Your task to perform on an android device: check the backup settings in the google photos Image 0: 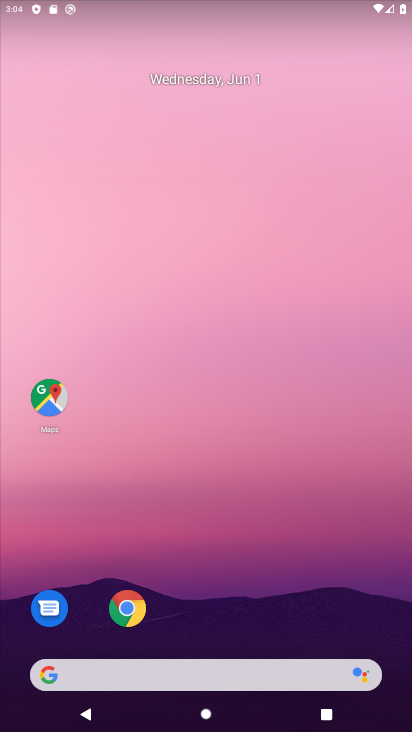
Step 0: drag from (231, 664) to (213, 237)
Your task to perform on an android device: check the backup settings in the google photos Image 1: 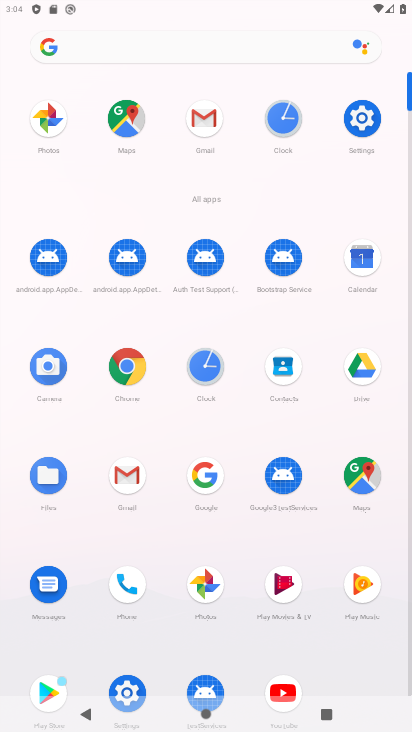
Step 1: click (203, 579)
Your task to perform on an android device: check the backup settings in the google photos Image 2: 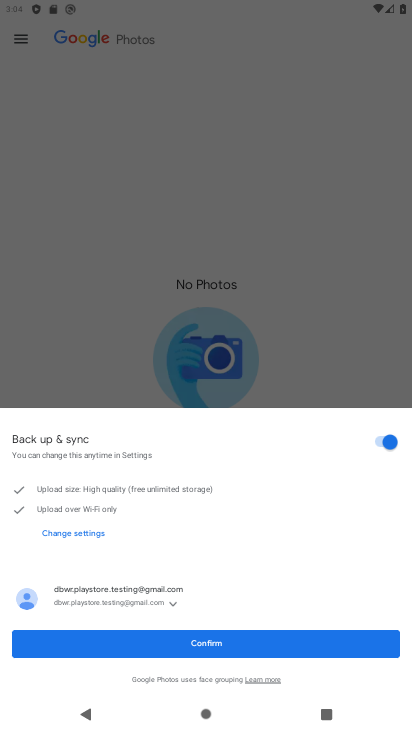
Step 2: click (185, 653)
Your task to perform on an android device: check the backup settings in the google photos Image 3: 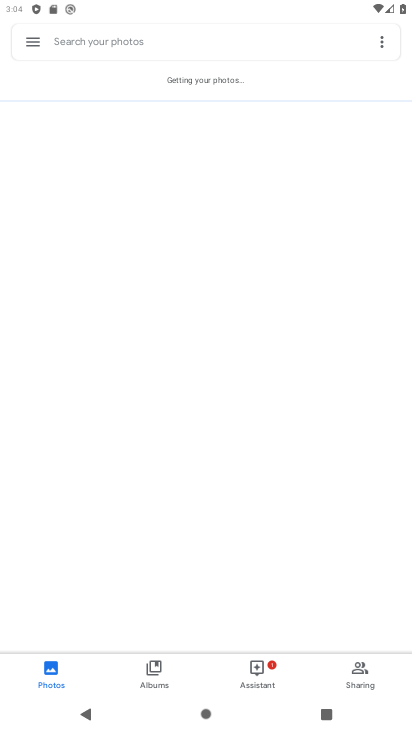
Step 3: click (28, 62)
Your task to perform on an android device: check the backup settings in the google photos Image 4: 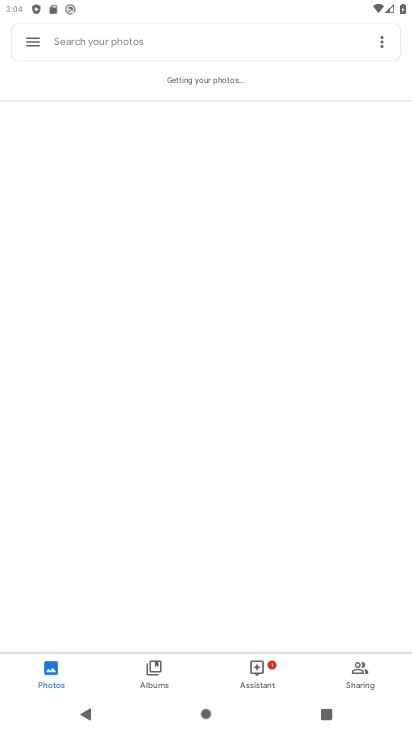
Step 4: click (30, 48)
Your task to perform on an android device: check the backup settings in the google photos Image 5: 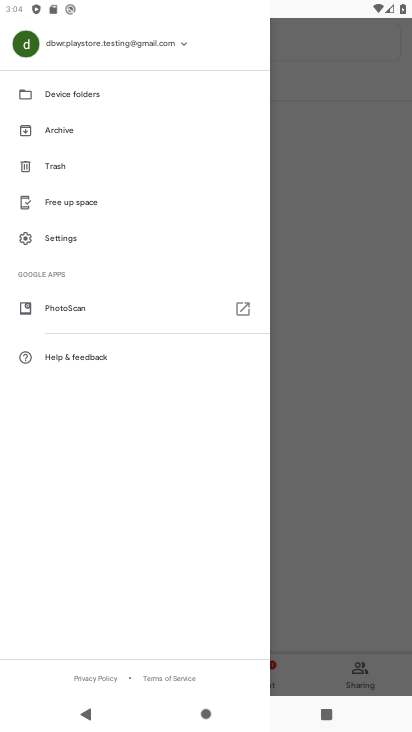
Step 5: click (58, 240)
Your task to perform on an android device: check the backup settings in the google photos Image 6: 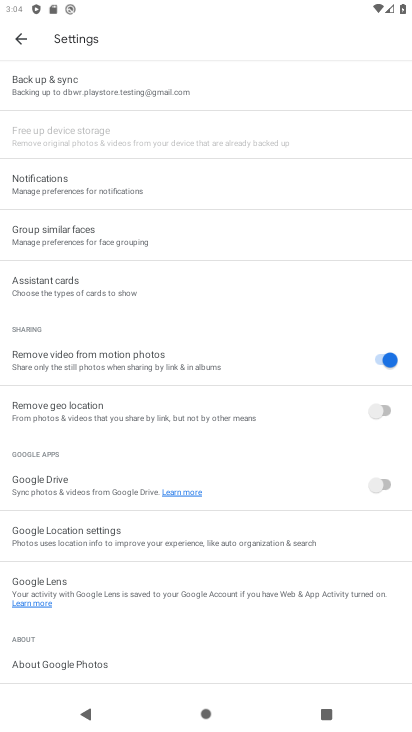
Step 6: task complete